Your task to perform on an android device: Add "macbook pro 13 inch" to the cart on amazon, then select checkout. Image 0: 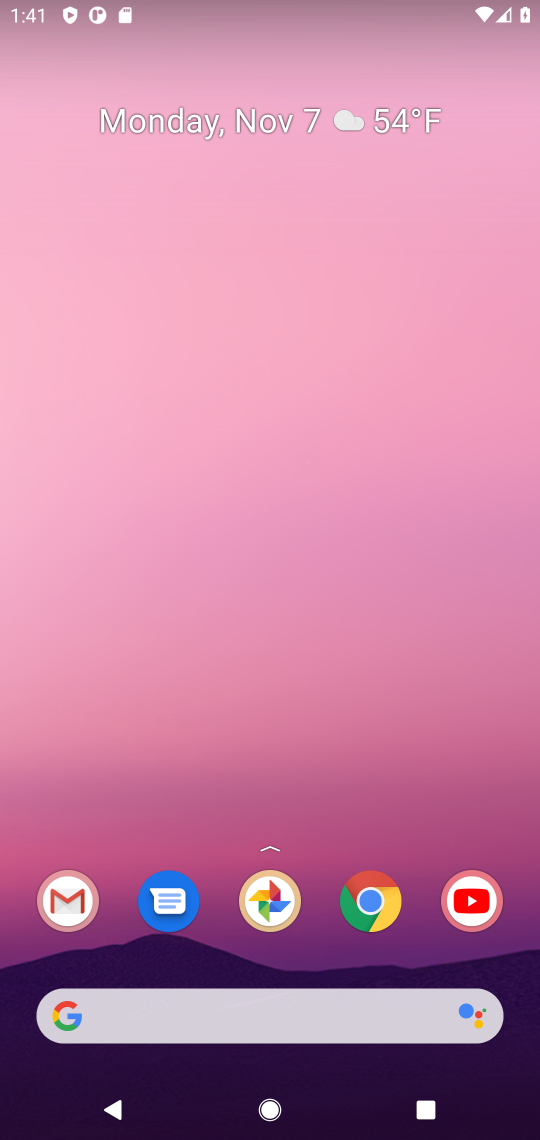
Step 0: click (376, 908)
Your task to perform on an android device: Add "macbook pro 13 inch" to the cart on amazon, then select checkout. Image 1: 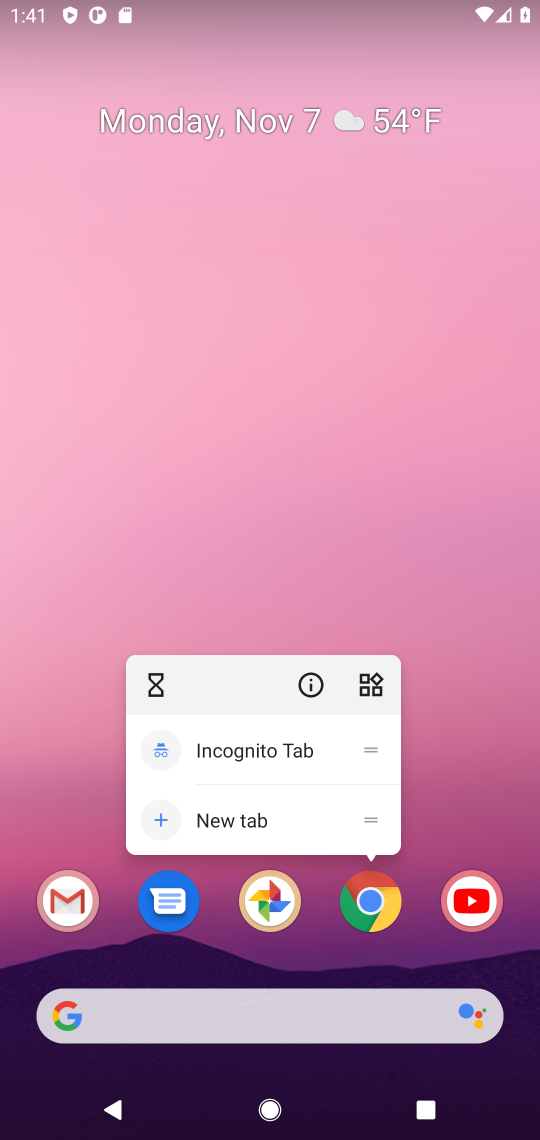
Step 1: click (376, 908)
Your task to perform on an android device: Add "macbook pro 13 inch" to the cart on amazon, then select checkout. Image 2: 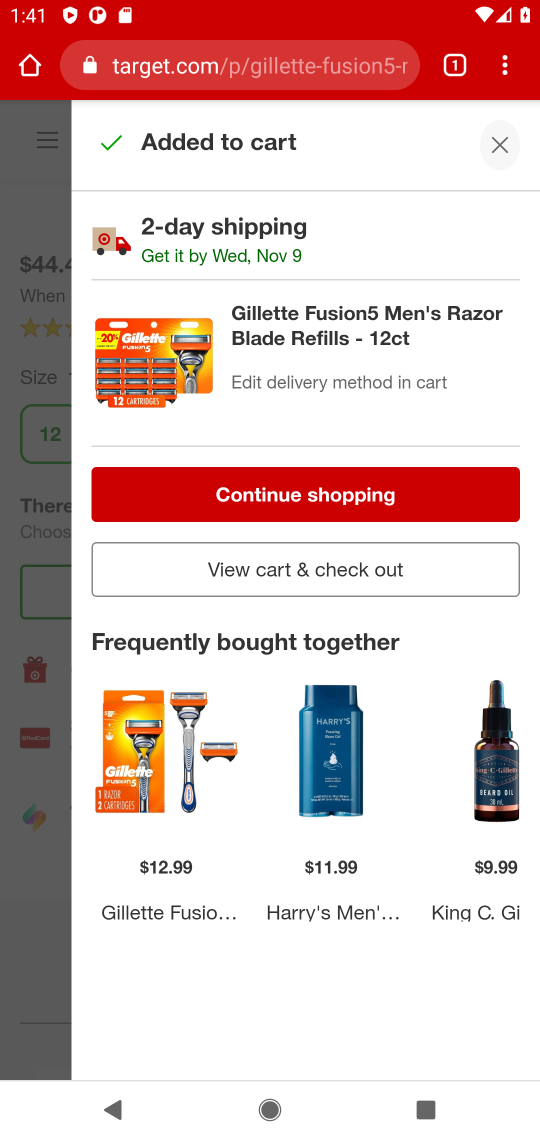
Step 2: click (238, 63)
Your task to perform on an android device: Add "macbook pro 13 inch" to the cart on amazon, then select checkout. Image 3: 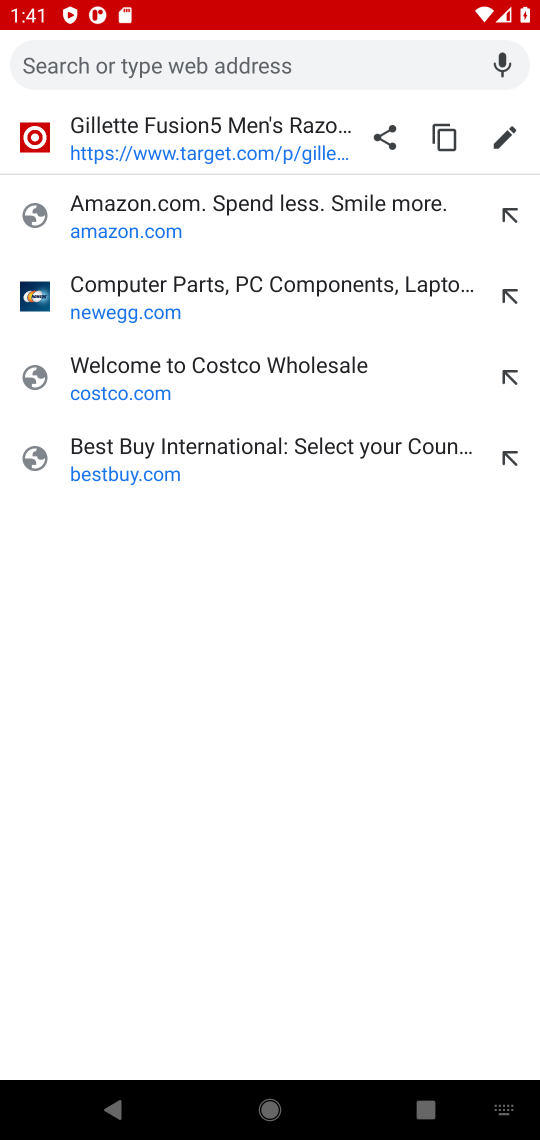
Step 3: click (121, 229)
Your task to perform on an android device: Add "macbook pro 13 inch" to the cart on amazon, then select checkout. Image 4: 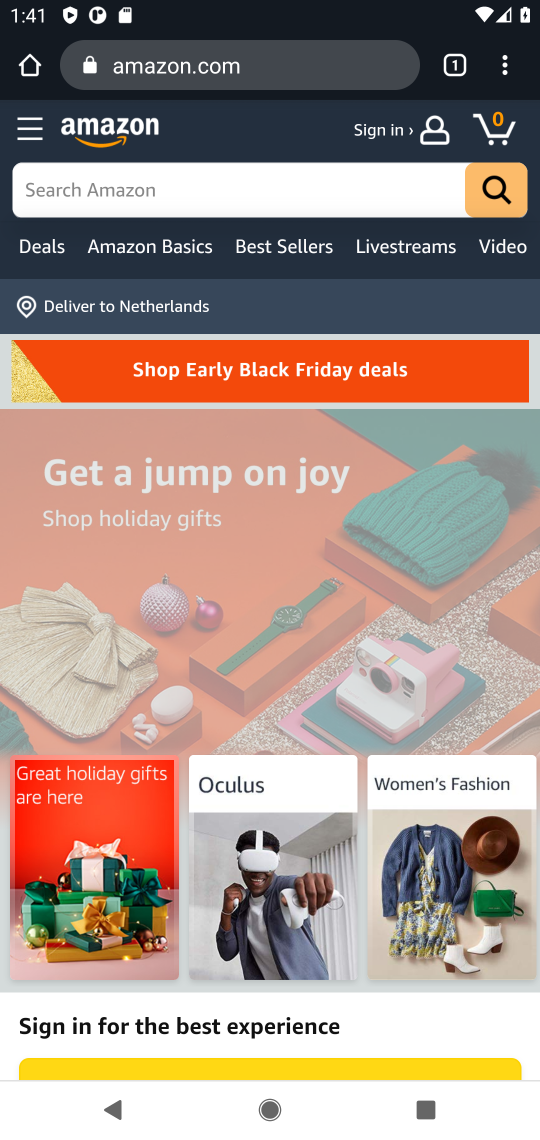
Step 4: click (121, 187)
Your task to perform on an android device: Add "macbook pro 13 inch" to the cart on amazon, then select checkout. Image 5: 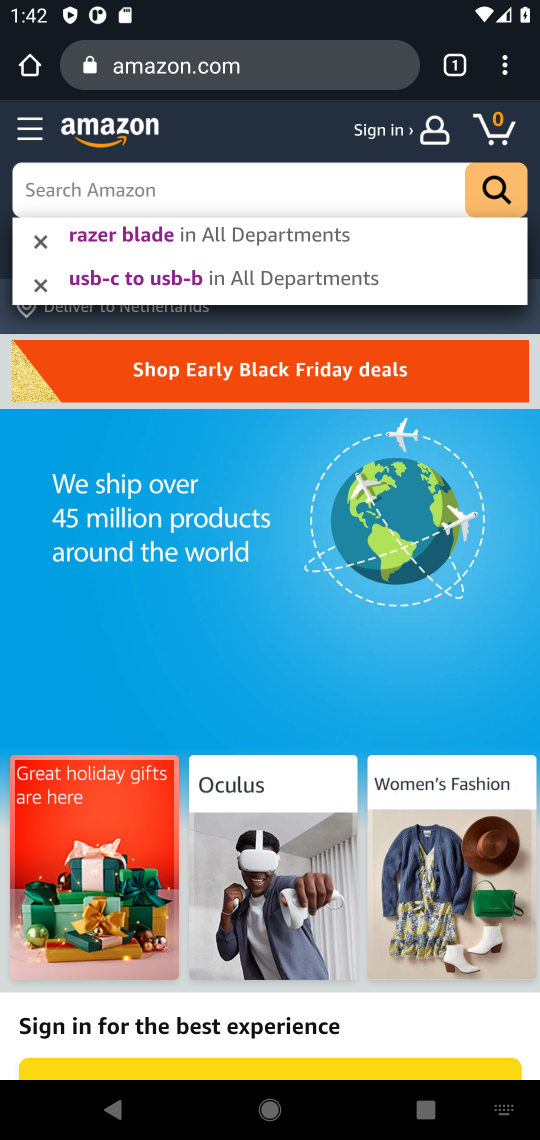
Step 5: click (208, 193)
Your task to perform on an android device: Add "macbook pro 13 inch" to the cart on amazon, then select checkout. Image 6: 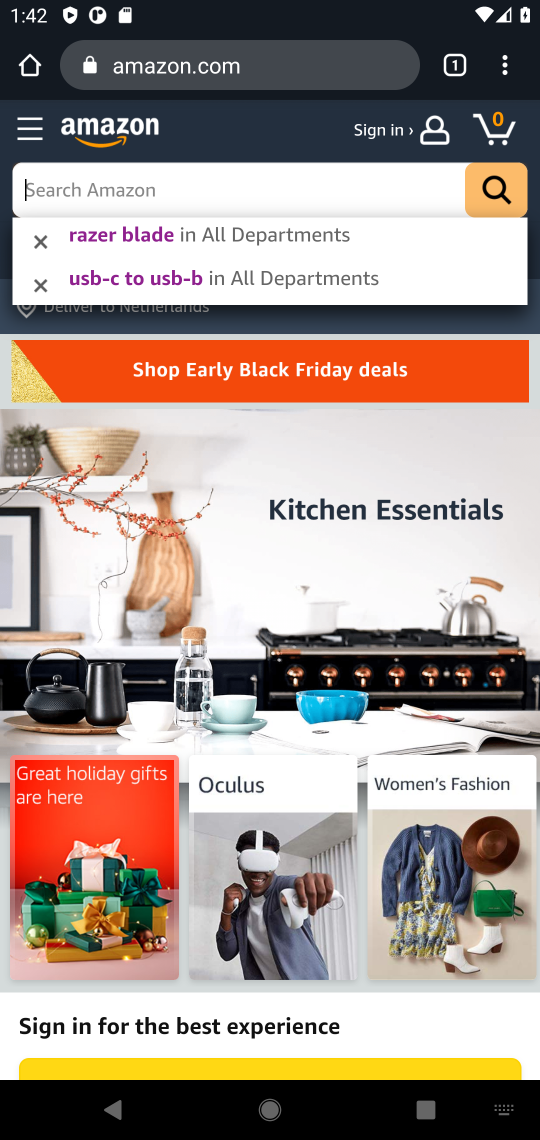
Step 6: type "macbook pro 13 inch"
Your task to perform on an android device: Add "macbook pro 13 inch" to the cart on amazon, then select checkout. Image 7: 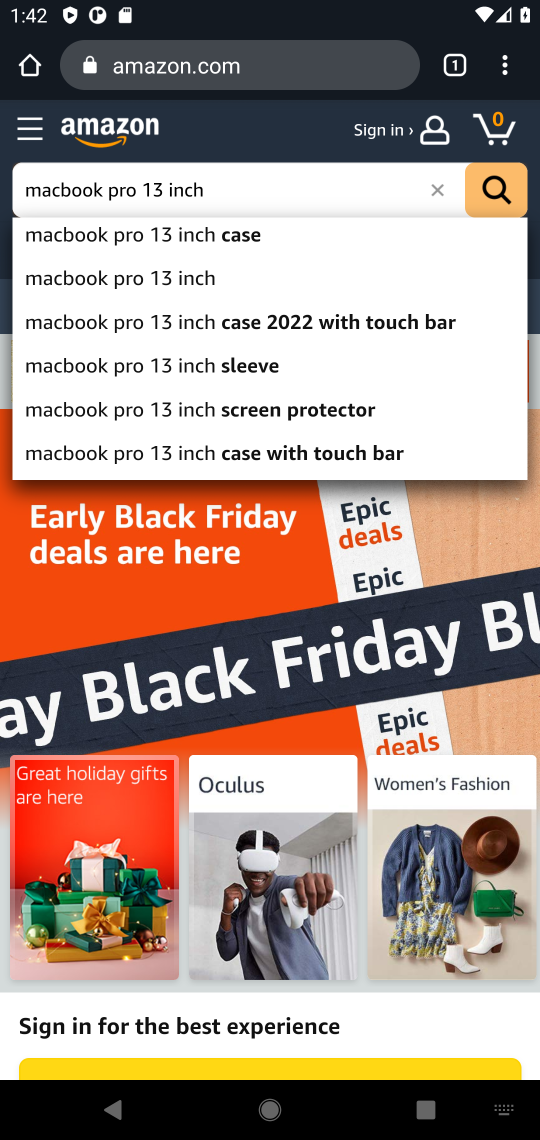
Step 7: click (69, 282)
Your task to perform on an android device: Add "macbook pro 13 inch" to the cart on amazon, then select checkout. Image 8: 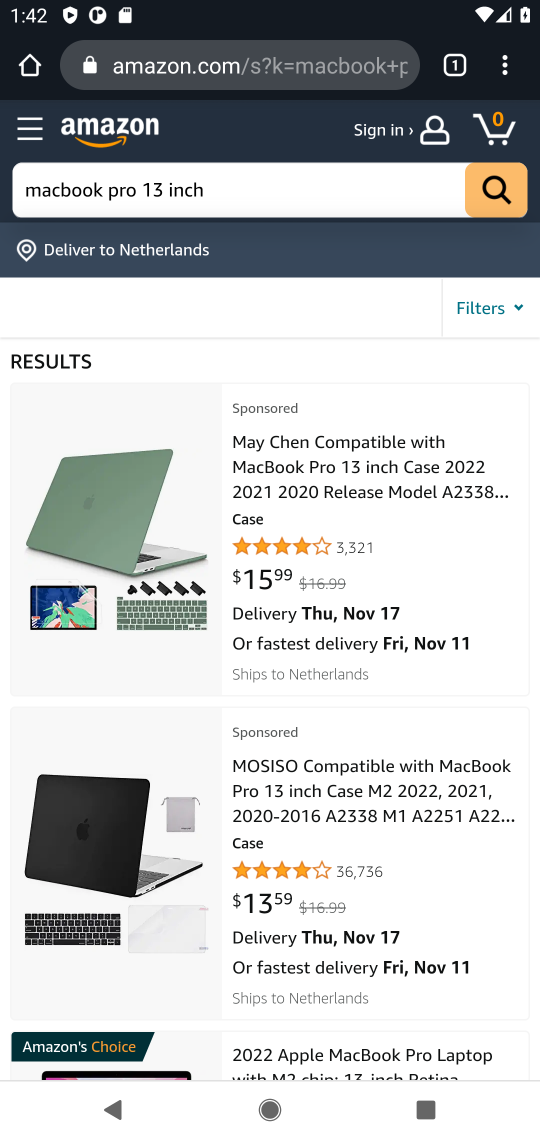
Step 8: click (213, 532)
Your task to perform on an android device: Add "macbook pro 13 inch" to the cart on amazon, then select checkout. Image 9: 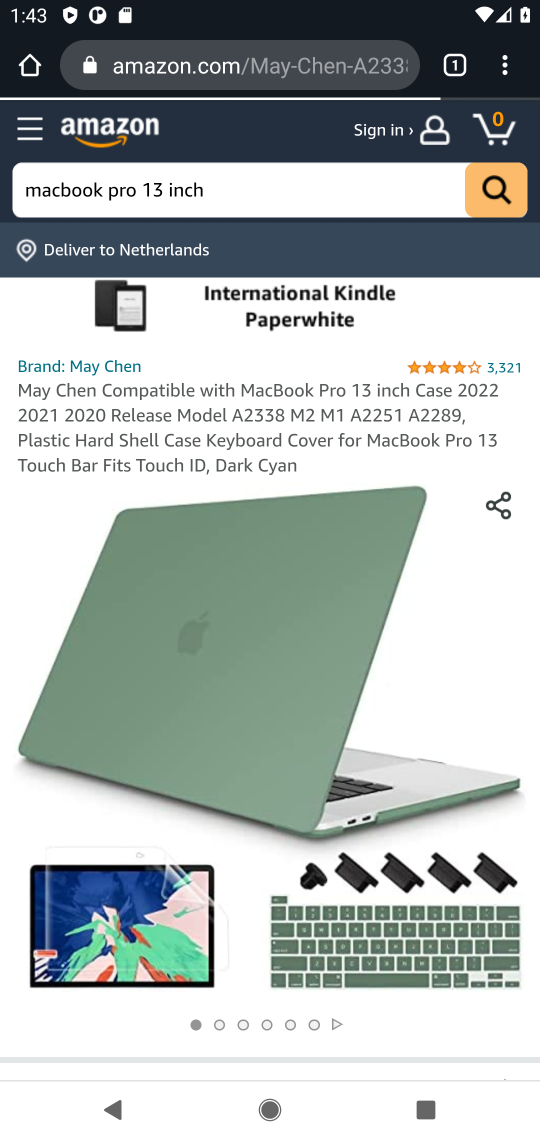
Step 9: drag from (232, 782) to (250, 334)
Your task to perform on an android device: Add "macbook pro 13 inch" to the cart on amazon, then select checkout. Image 10: 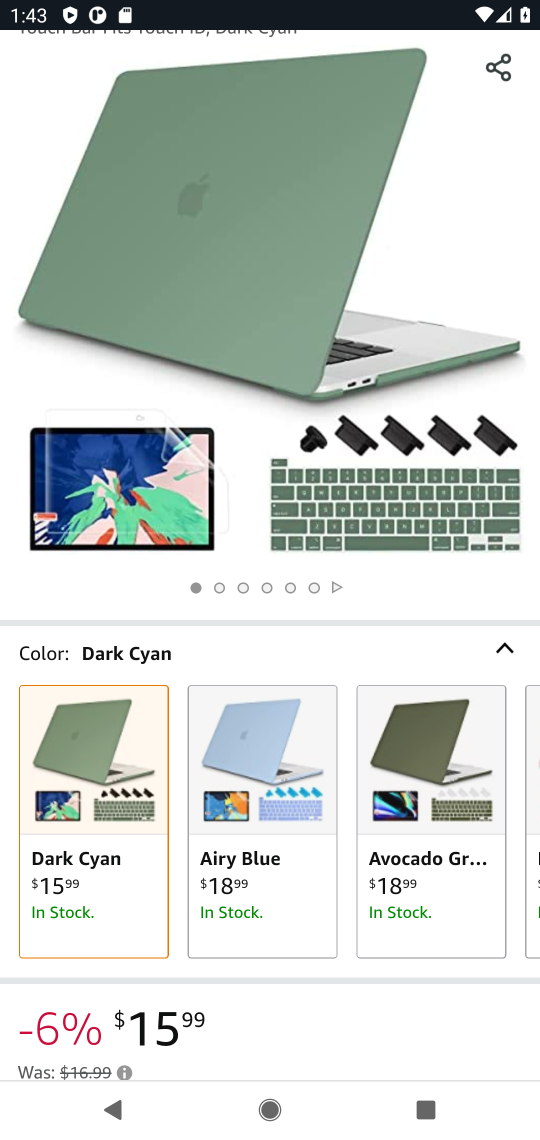
Step 10: drag from (238, 1020) to (252, 502)
Your task to perform on an android device: Add "macbook pro 13 inch" to the cart on amazon, then select checkout. Image 11: 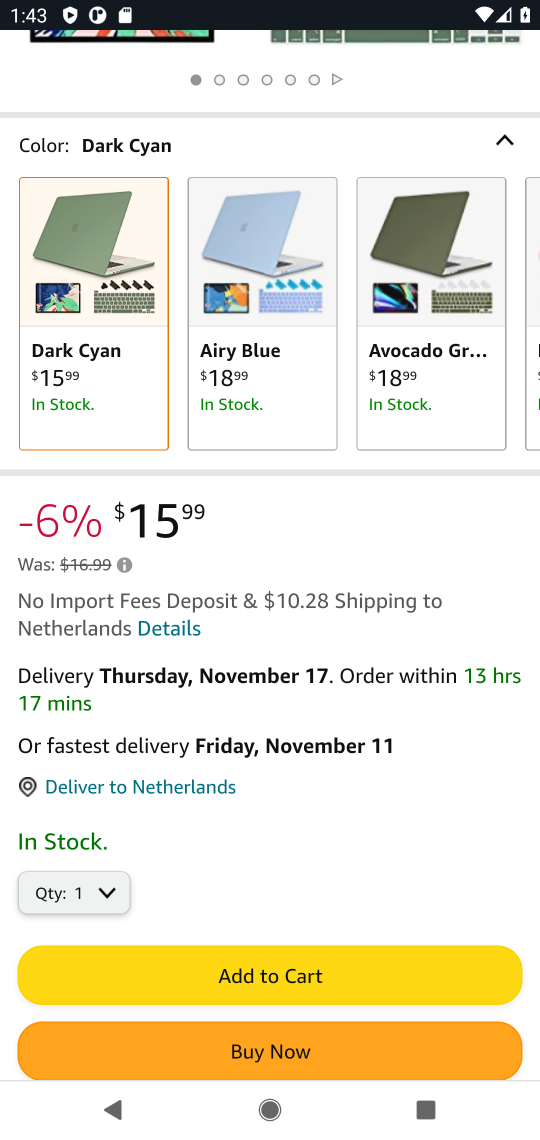
Step 11: click (234, 979)
Your task to perform on an android device: Add "macbook pro 13 inch" to the cart on amazon, then select checkout. Image 12: 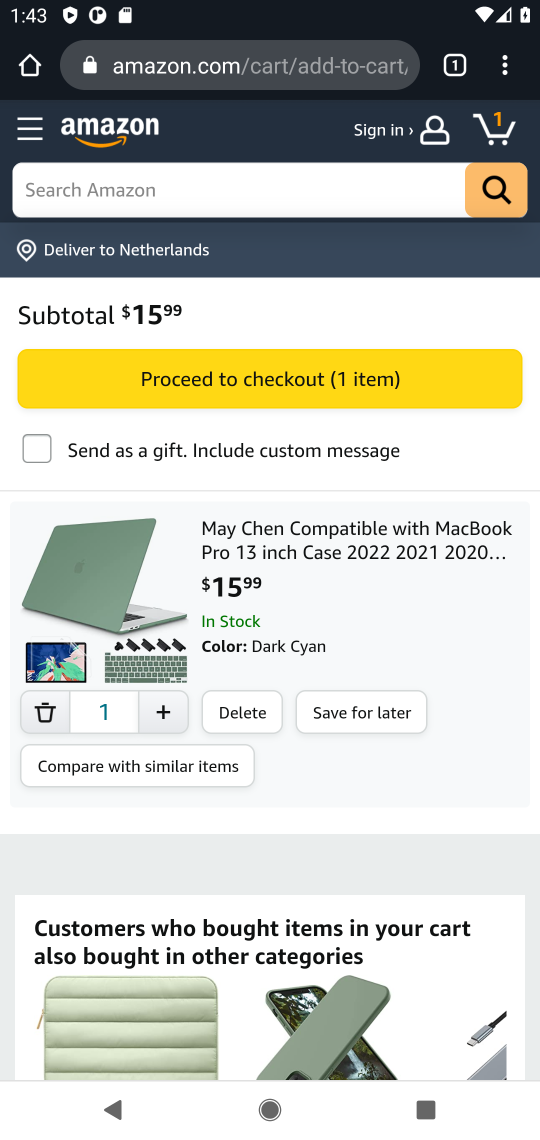
Step 12: click (238, 376)
Your task to perform on an android device: Add "macbook pro 13 inch" to the cart on amazon, then select checkout. Image 13: 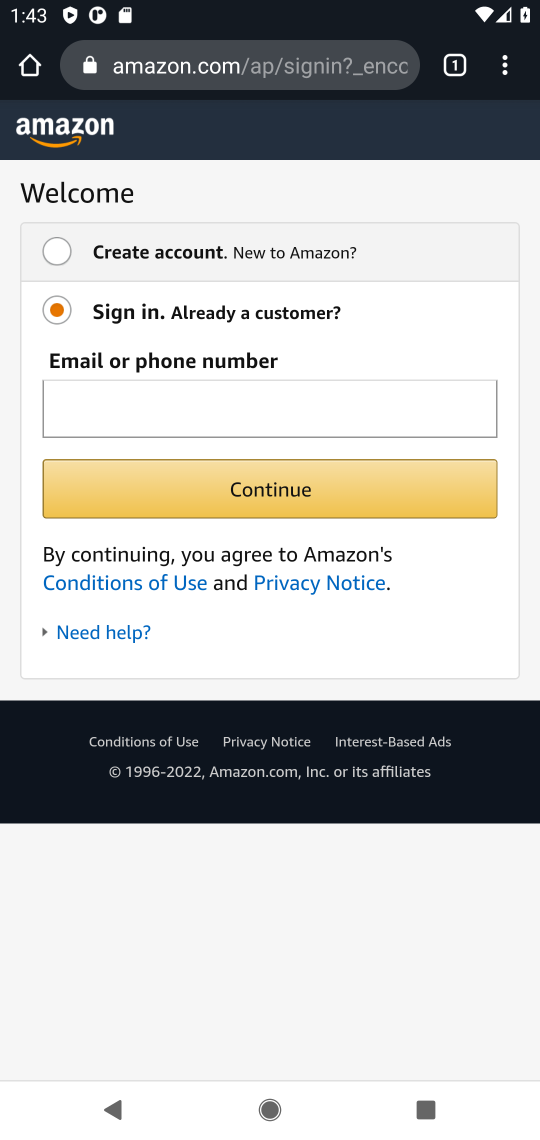
Step 13: task complete